Your task to perform on an android device: set an alarm Image 0: 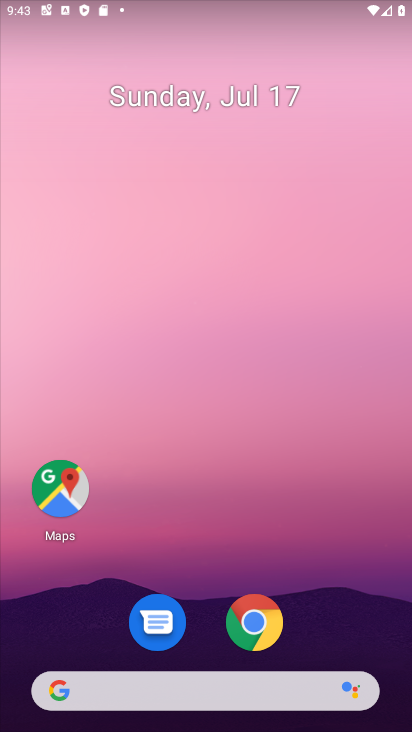
Step 0: drag from (200, 728) to (191, 80)
Your task to perform on an android device: set an alarm Image 1: 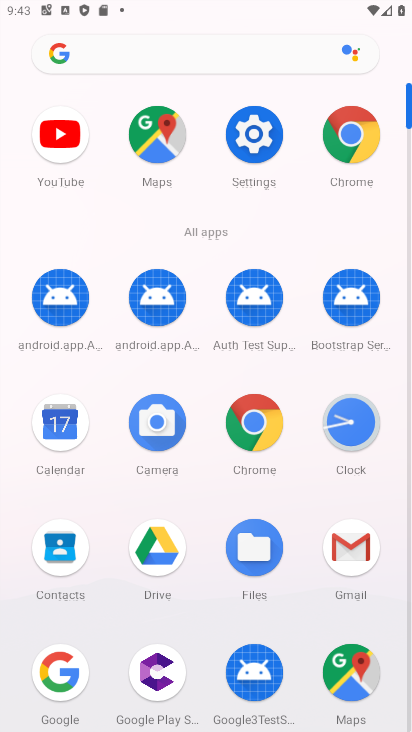
Step 1: click (334, 420)
Your task to perform on an android device: set an alarm Image 2: 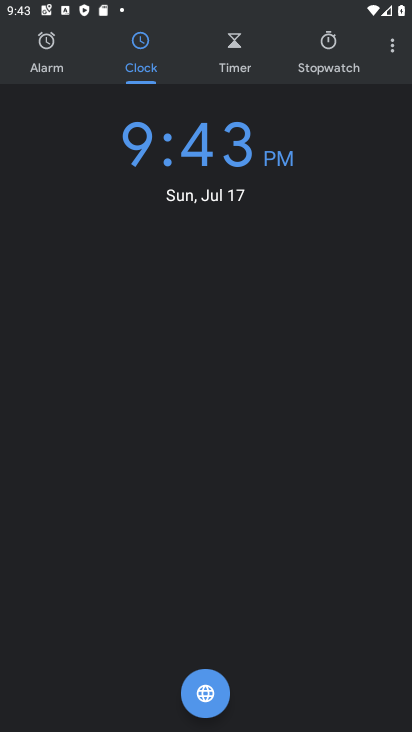
Step 2: click (36, 51)
Your task to perform on an android device: set an alarm Image 3: 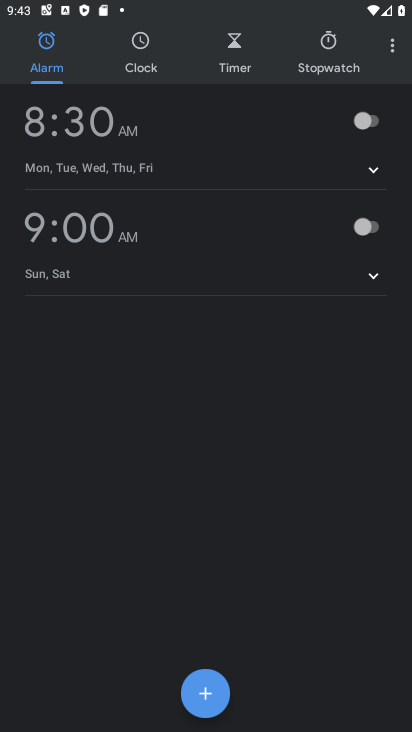
Step 3: click (205, 684)
Your task to perform on an android device: set an alarm Image 4: 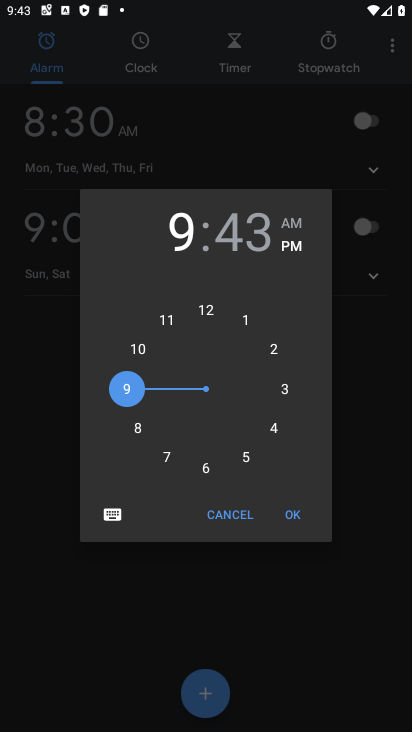
Step 4: click (294, 518)
Your task to perform on an android device: set an alarm Image 5: 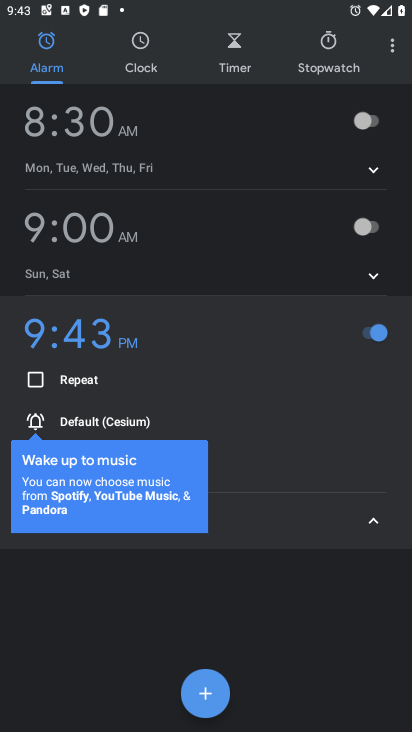
Step 5: task complete